Your task to perform on an android device: delete browsing data in the chrome app Image 0: 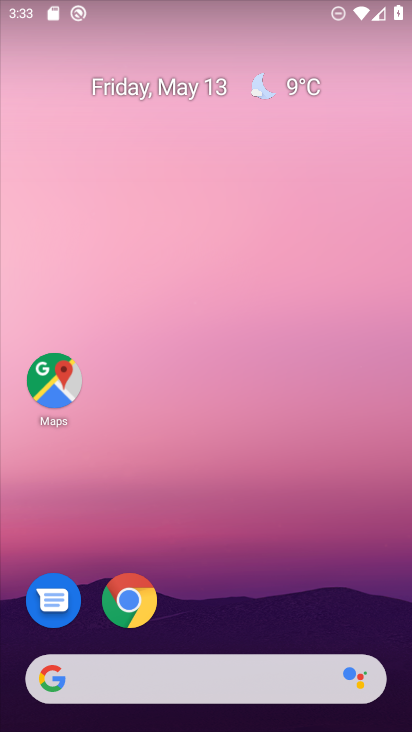
Step 0: drag from (202, 626) to (287, 185)
Your task to perform on an android device: delete browsing data in the chrome app Image 1: 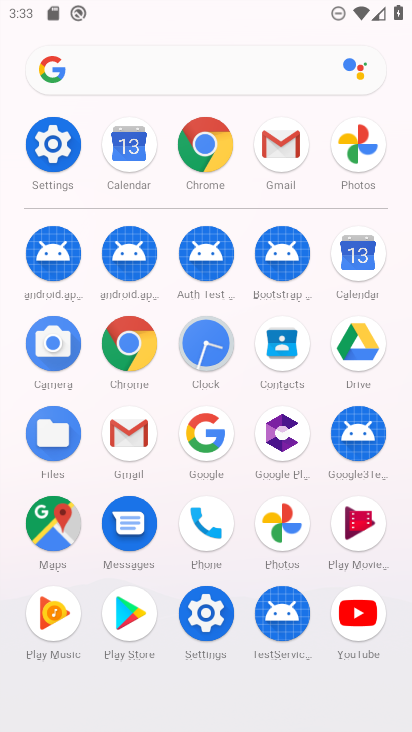
Step 1: click (129, 329)
Your task to perform on an android device: delete browsing data in the chrome app Image 2: 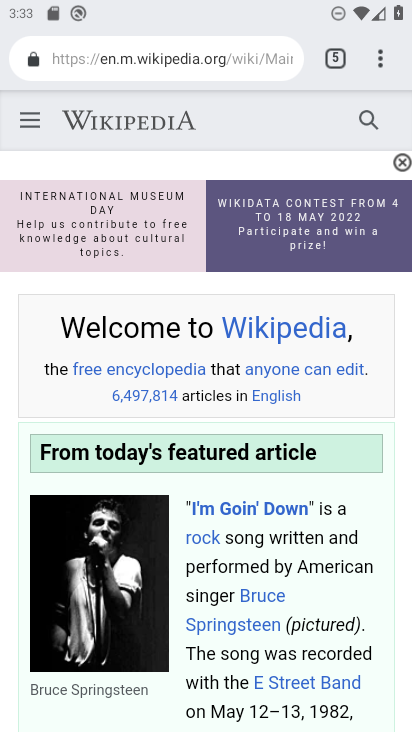
Step 2: drag from (387, 51) to (176, 325)
Your task to perform on an android device: delete browsing data in the chrome app Image 3: 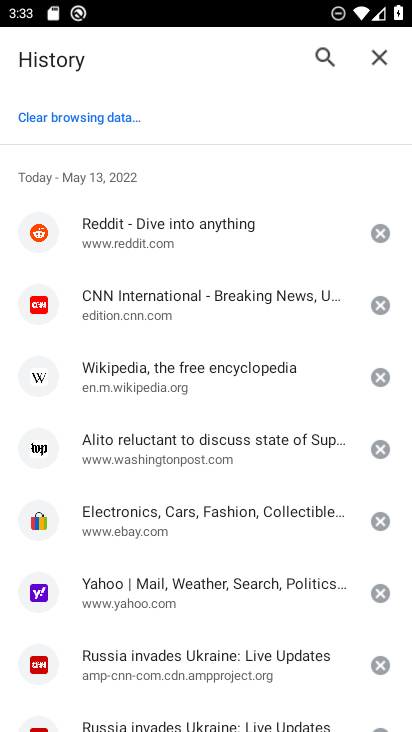
Step 3: drag from (121, 604) to (213, 299)
Your task to perform on an android device: delete browsing data in the chrome app Image 4: 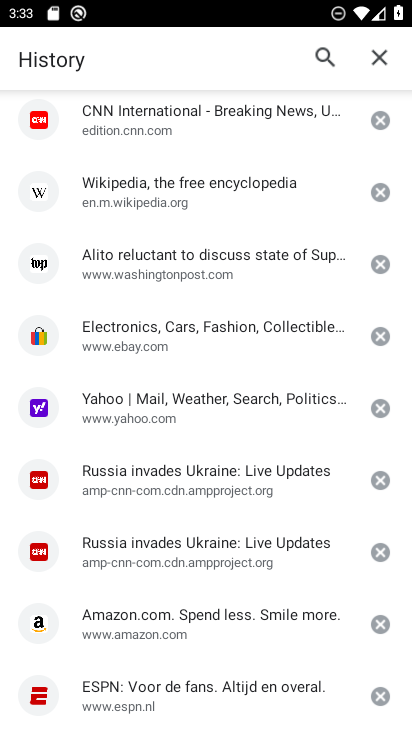
Step 4: drag from (247, 177) to (245, 606)
Your task to perform on an android device: delete browsing data in the chrome app Image 5: 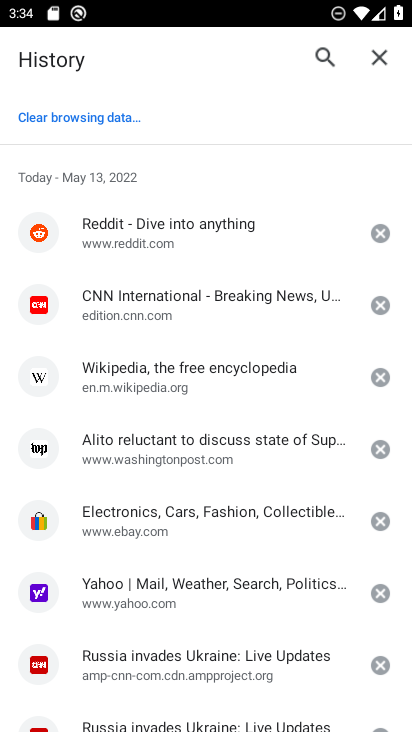
Step 5: click (81, 114)
Your task to perform on an android device: delete browsing data in the chrome app Image 6: 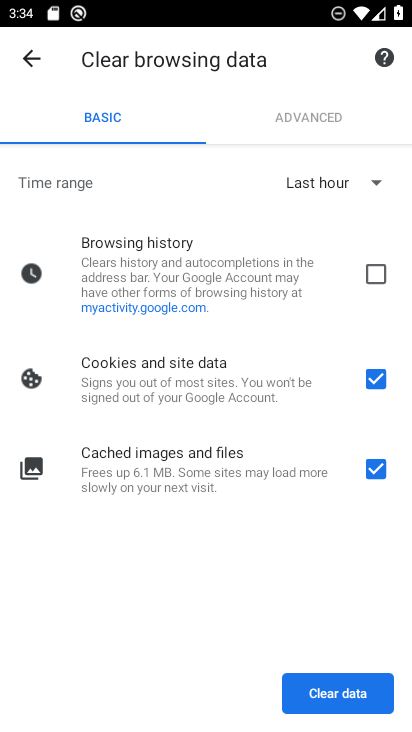
Step 6: click (320, 691)
Your task to perform on an android device: delete browsing data in the chrome app Image 7: 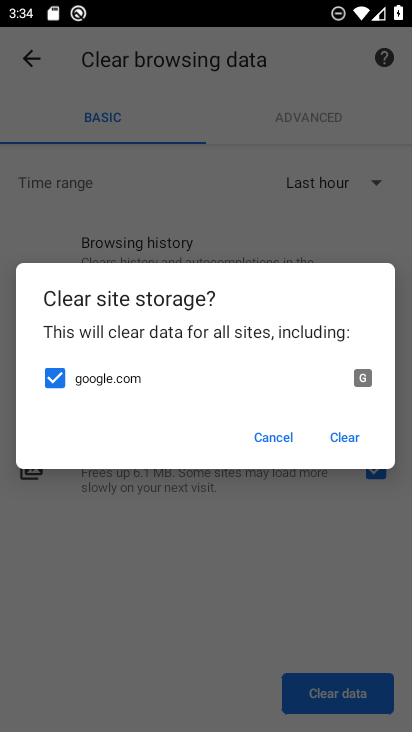
Step 7: click (337, 446)
Your task to perform on an android device: delete browsing data in the chrome app Image 8: 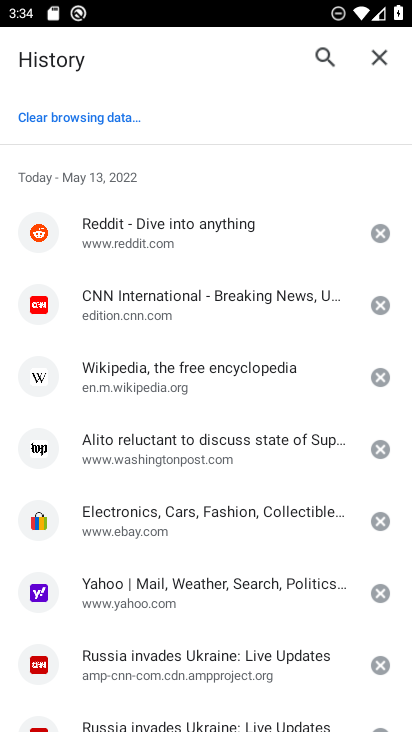
Step 8: task complete